Your task to perform on an android device: Go to settings Image 0: 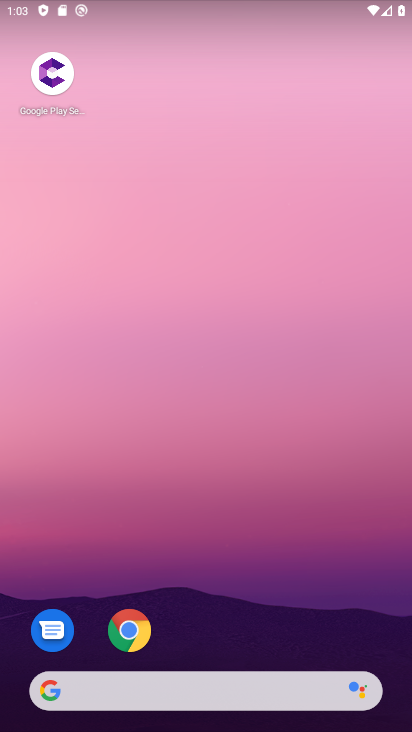
Step 0: drag from (294, 534) to (273, 183)
Your task to perform on an android device: Go to settings Image 1: 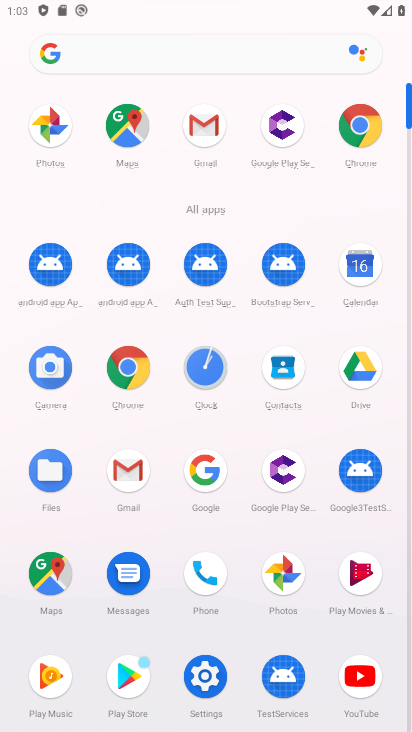
Step 1: click (207, 679)
Your task to perform on an android device: Go to settings Image 2: 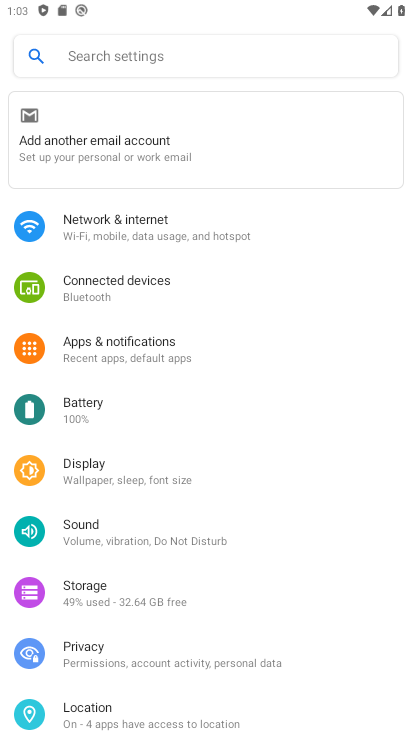
Step 2: task complete